Your task to perform on an android device: Go to eBay Image 0: 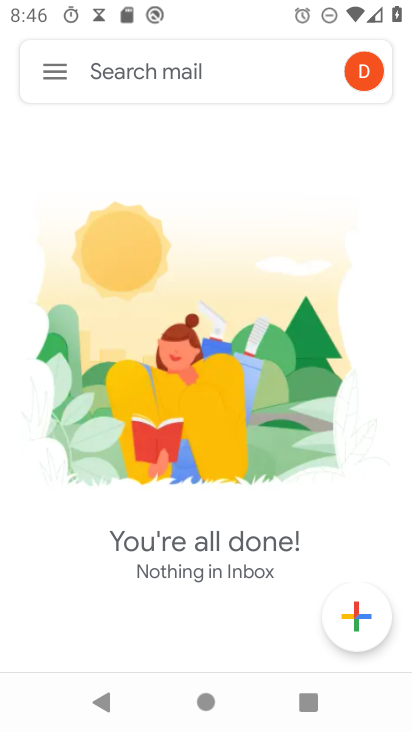
Step 0: press home button
Your task to perform on an android device: Go to eBay Image 1: 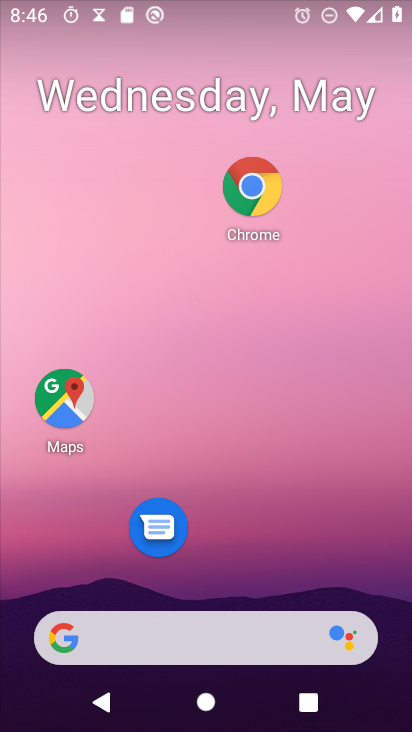
Step 1: click (248, 187)
Your task to perform on an android device: Go to eBay Image 2: 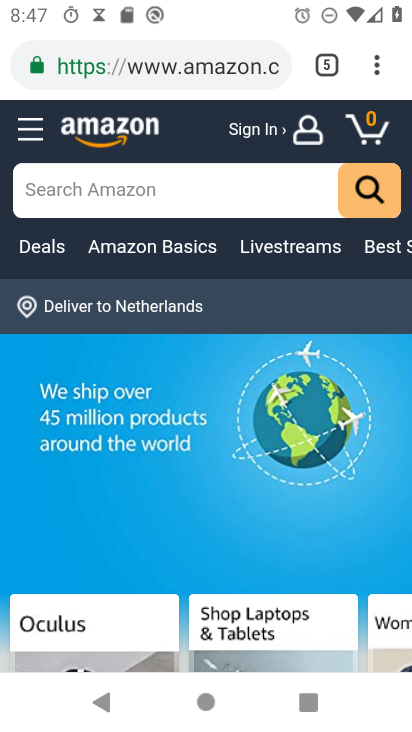
Step 2: click (264, 64)
Your task to perform on an android device: Go to eBay Image 3: 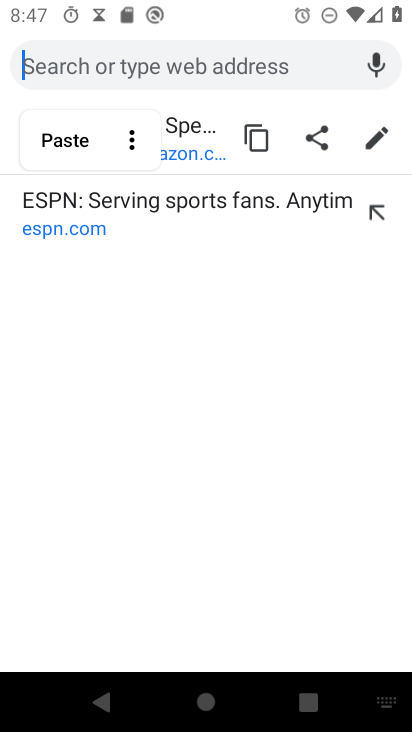
Step 3: type " ESPN.com"
Your task to perform on an android device: Go to eBay Image 4: 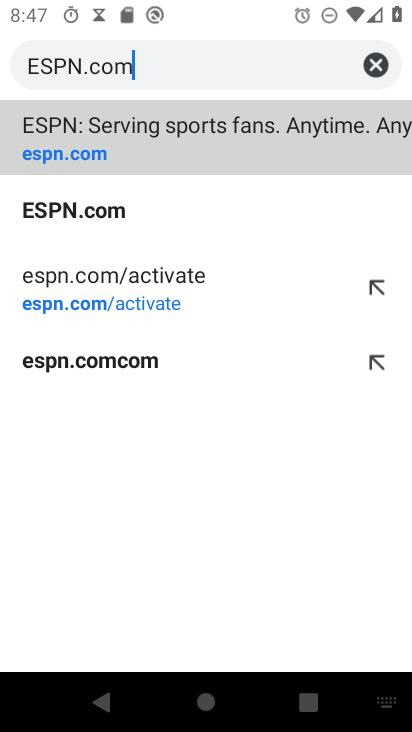
Step 4: click (58, 149)
Your task to perform on an android device: Go to eBay Image 5: 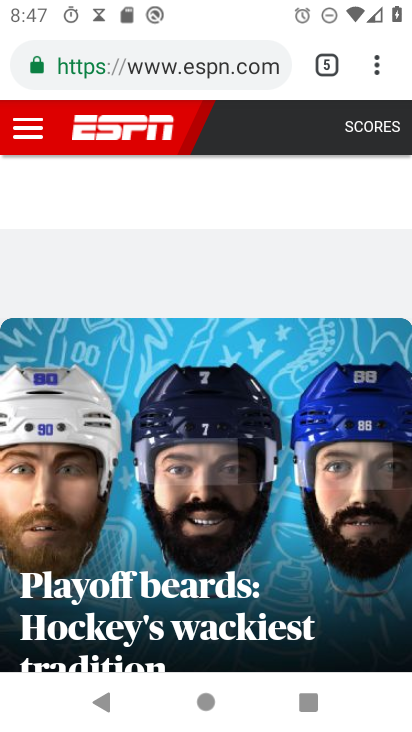
Step 5: task complete